Your task to perform on an android device: find photos in the google photos app Image 0: 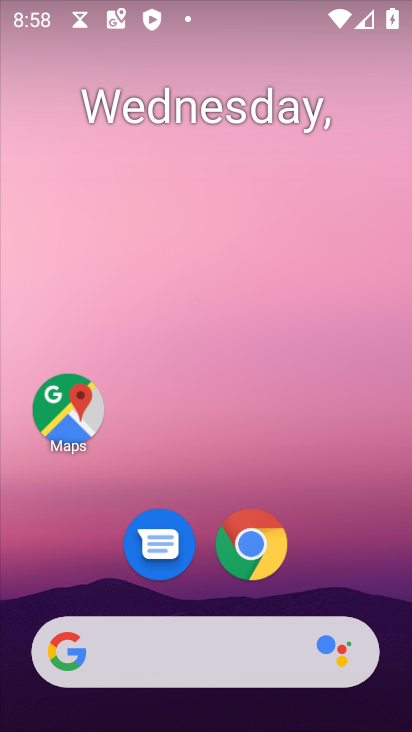
Step 0: drag from (162, 634) to (257, 99)
Your task to perform on an android device: find photos in the google photos app Image 1: 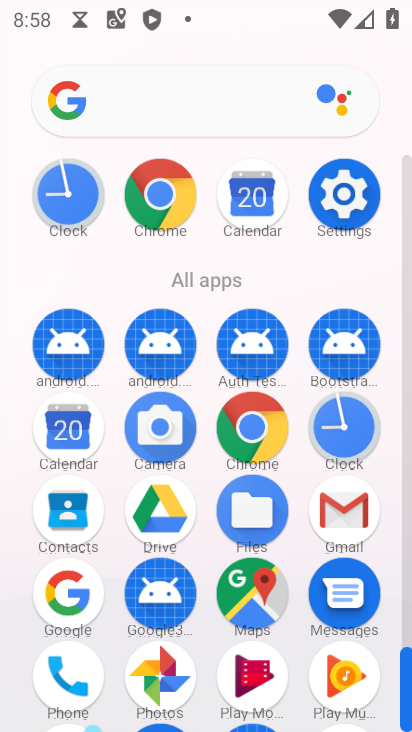
Step 1: click (162, 682)
Your task to perform on an android device: find photos in the google photos app Image 2: 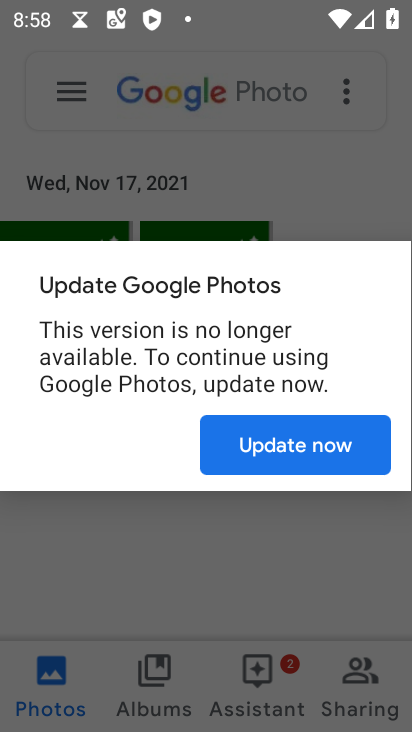
Step 2: click (300, 449)
Your task to perform on an android device: find photos in the google photos app Image 3: 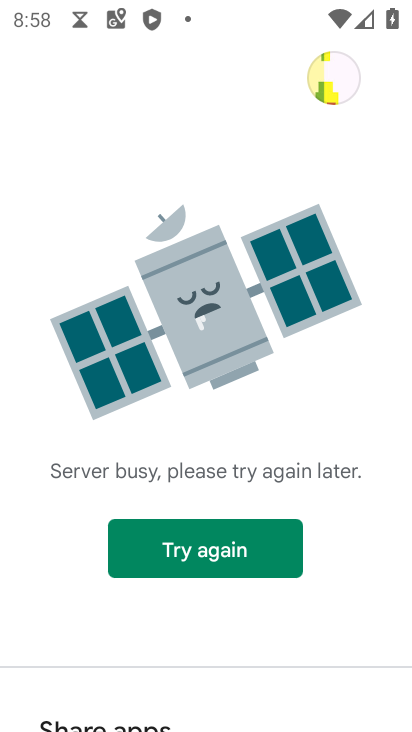
Step 3: task complete